Your task to perform on an android device: Open battery settings Image 0: 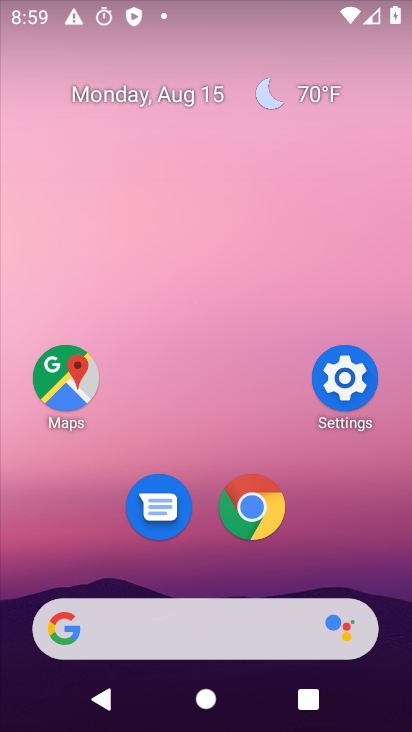
Step 0: press home button
Your task to perform on an android device: Open battery settings Image 1: 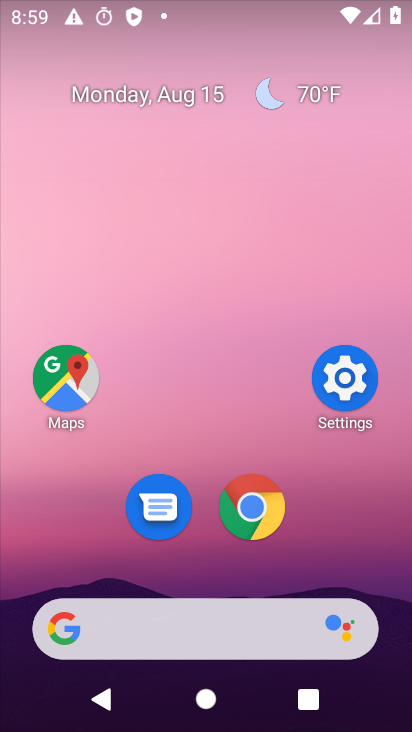
Step 1: click (359, 377)
Your task to perform on an android device: Open battery settings Image 2: 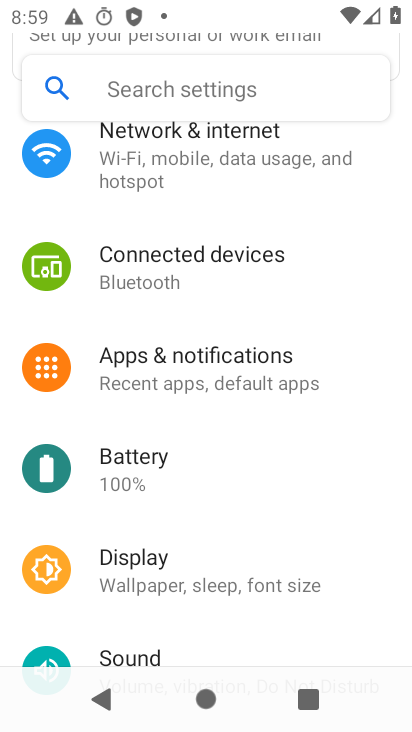
Step 2: click (128, 468)
Your task to perform on an android device: Open battery settings Image 3: 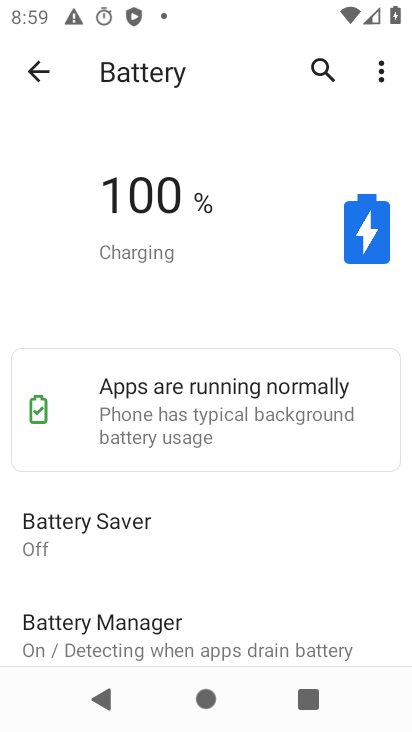
Step 3: task complete